Your task to perform on an android device: What's the top post on reddit? Image 0: 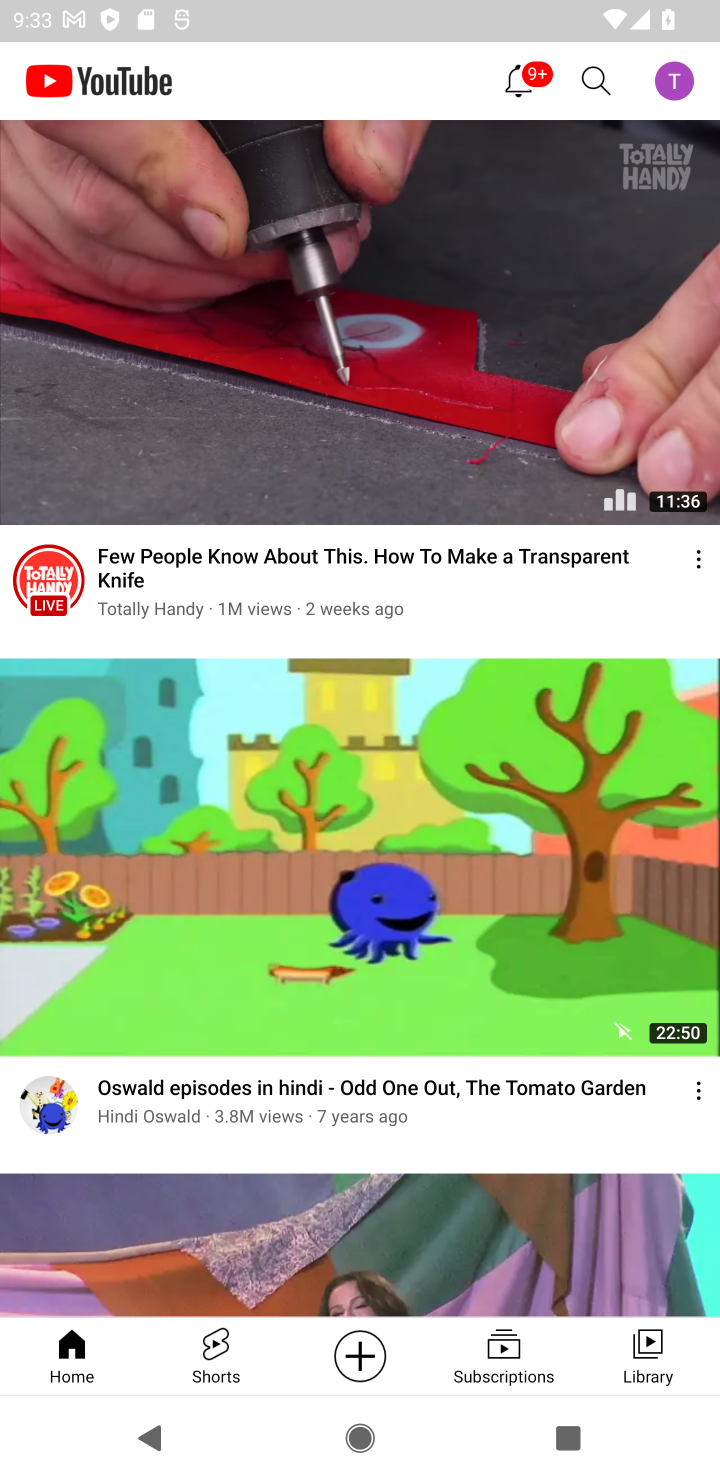
Step 0: press home button
Your task to perform on an android device: What's the top post on reddit? Image 1: 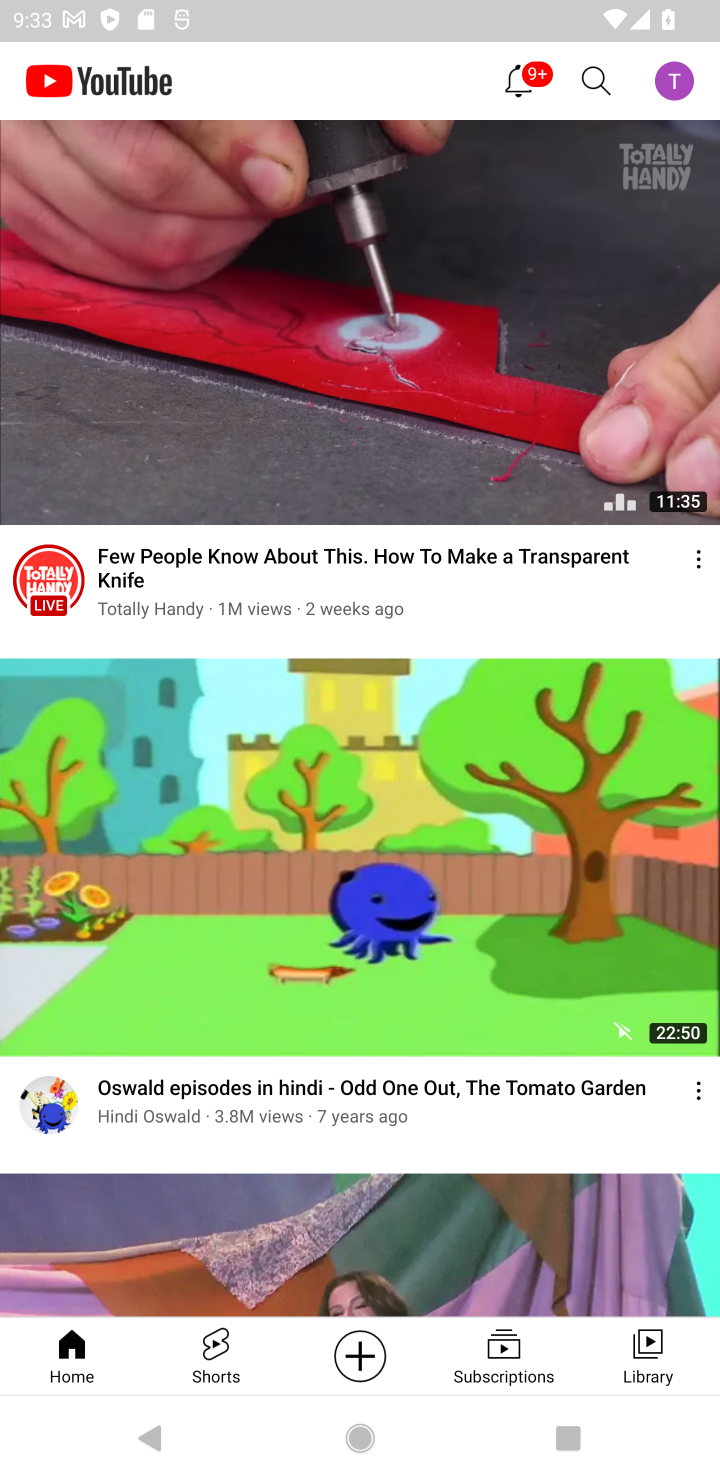
Step 1: press home button
Your task to perform on an android device: What's the top post on reddit? Image 2: 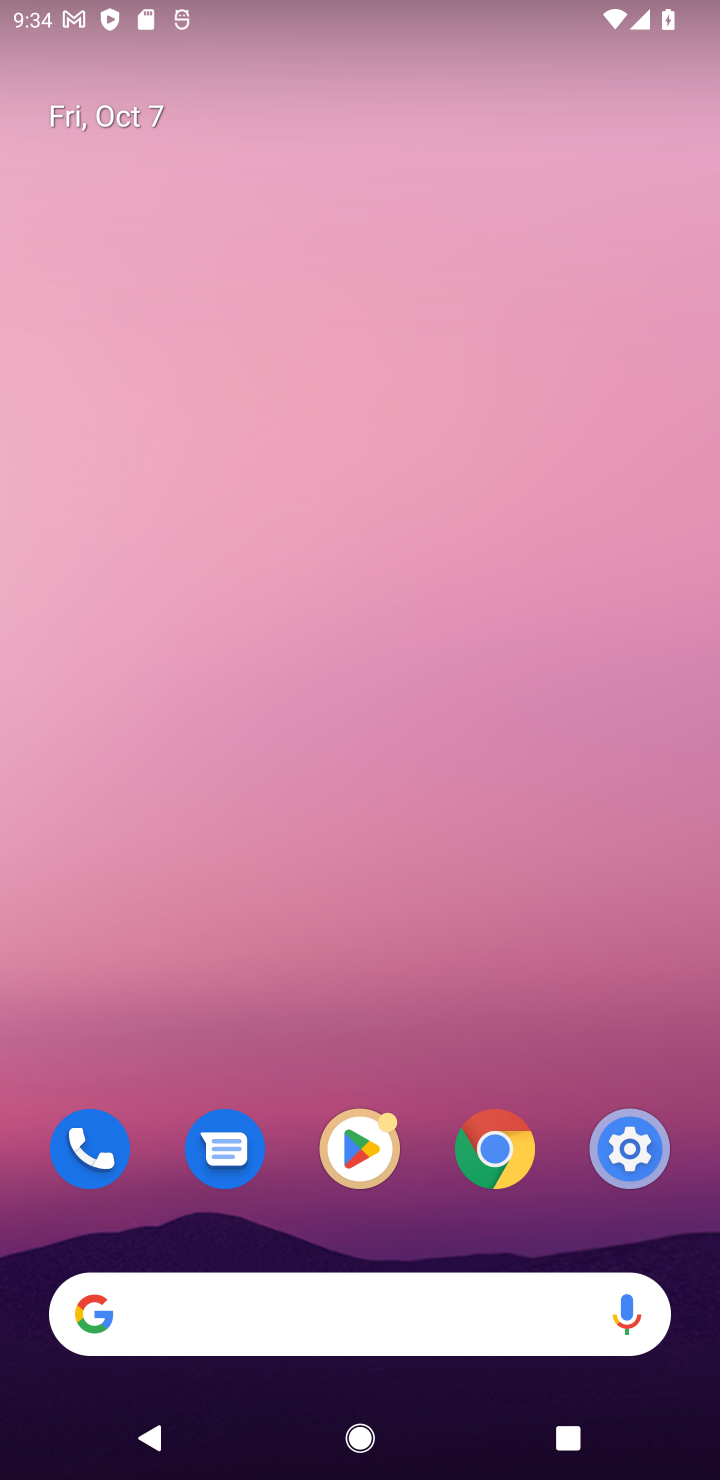
Step 2: click (361, 1299)
Your task to perform on an android device: What's the top post on reddit? Image 3: 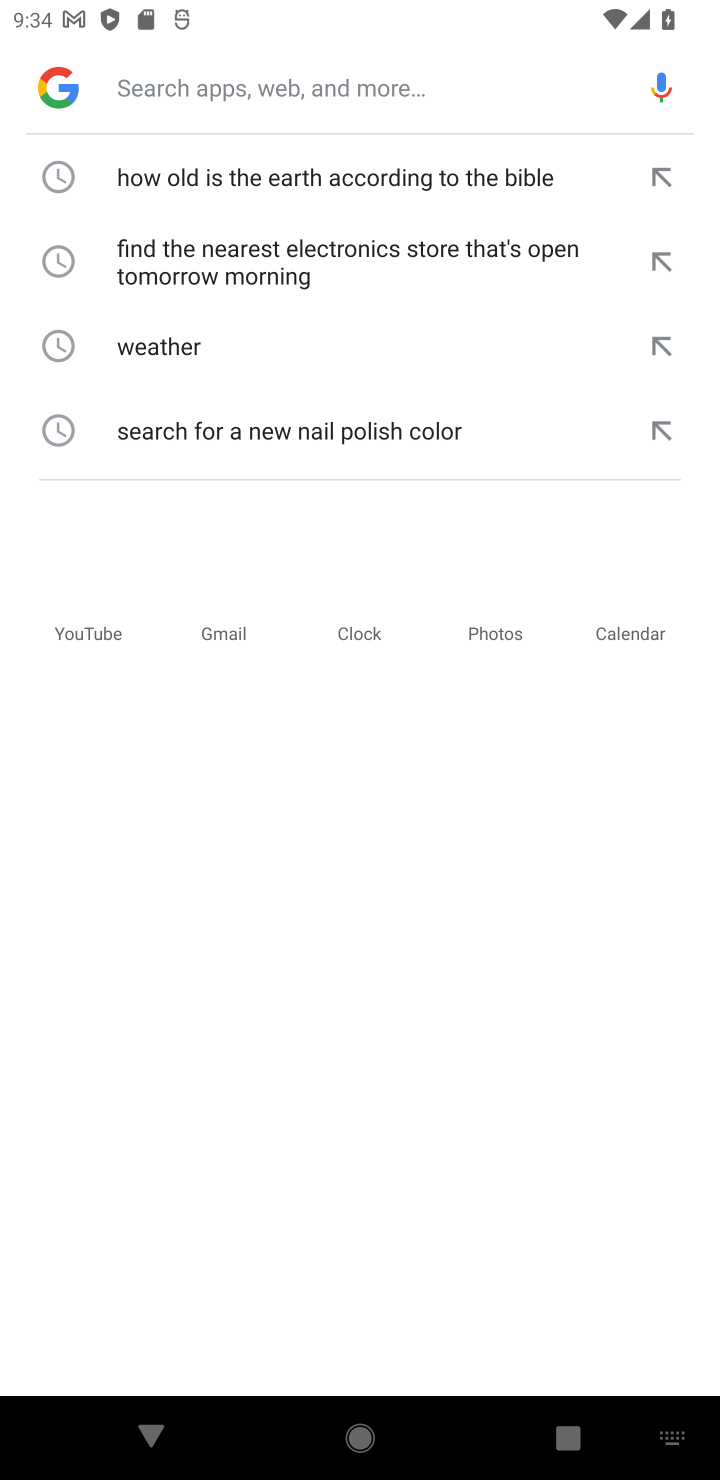
Step 3: type "redit"
Your task to perform on an android device: What's the top post on reddit? Image 4: 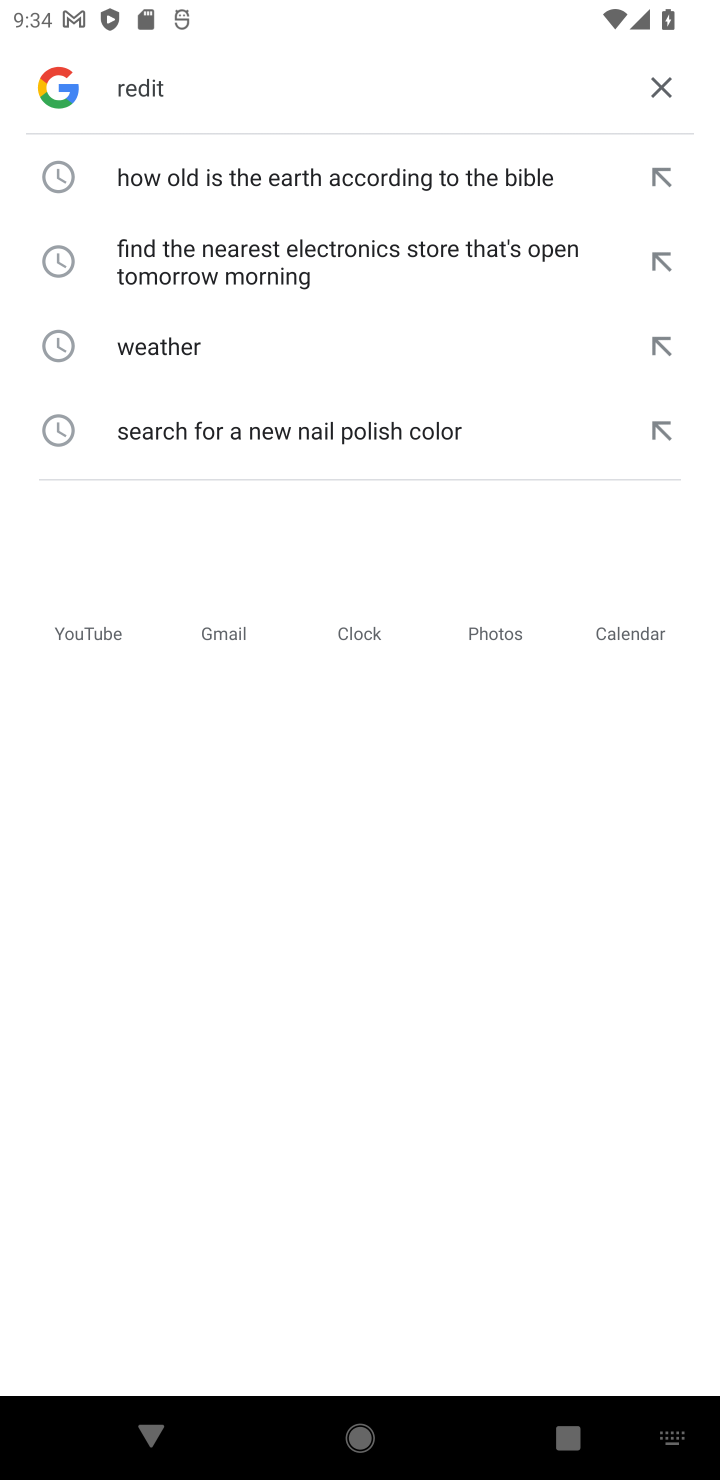
Step 4: click (419, 150)
Your task to perform on an android device: What's the top post on reddit? Image 5: 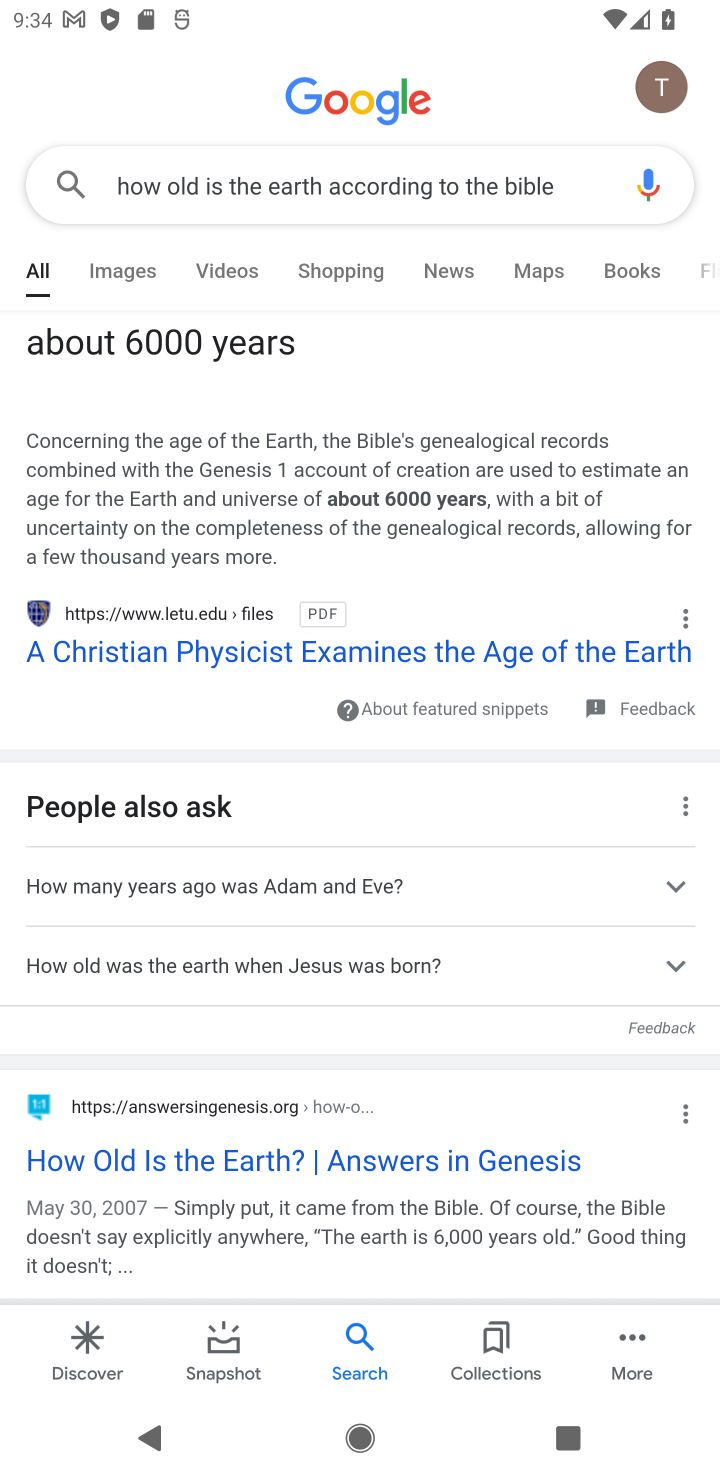
Step 5: click (69, 702)
Your task to perform on an android device: What's the top post on reddit? Image 6: 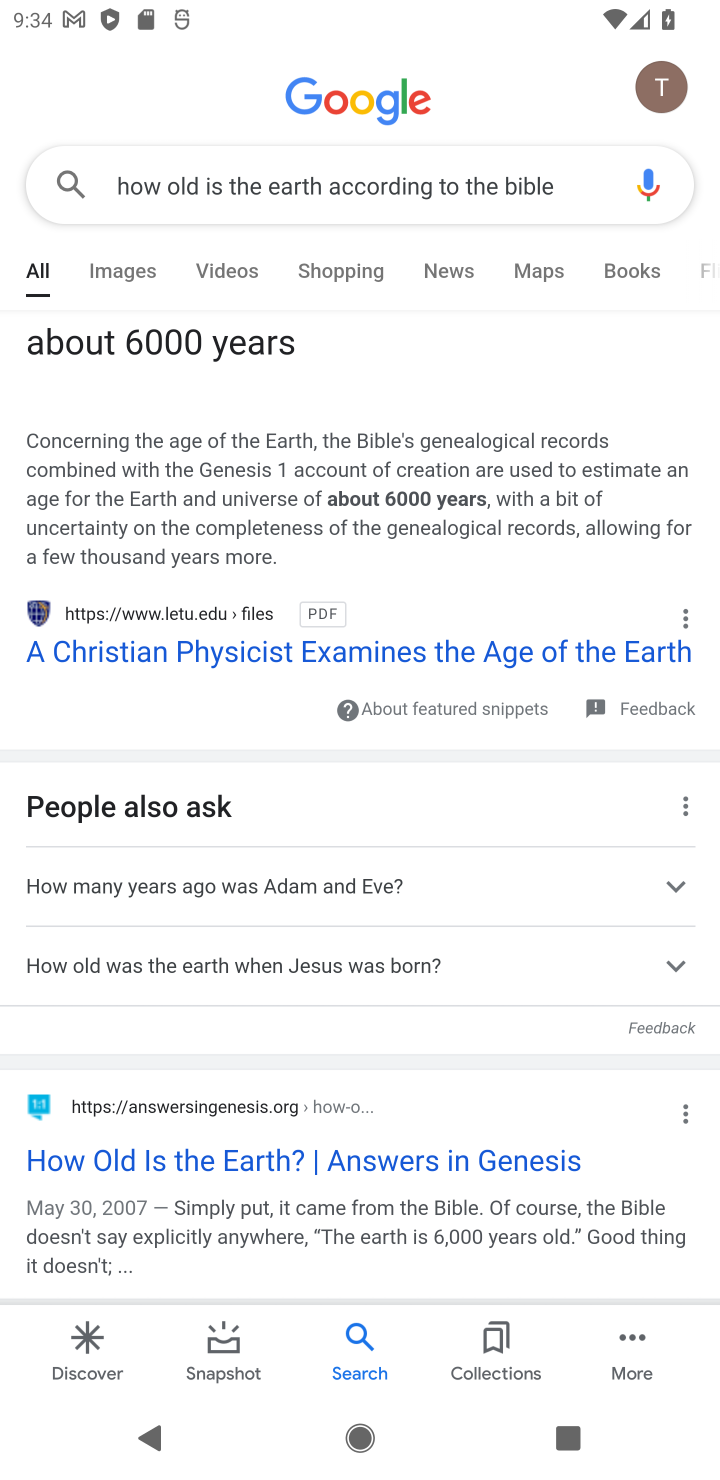
Step 6: task complete